Your task to perform on an android device: Search for pizza restaurants on Maps Image 0: 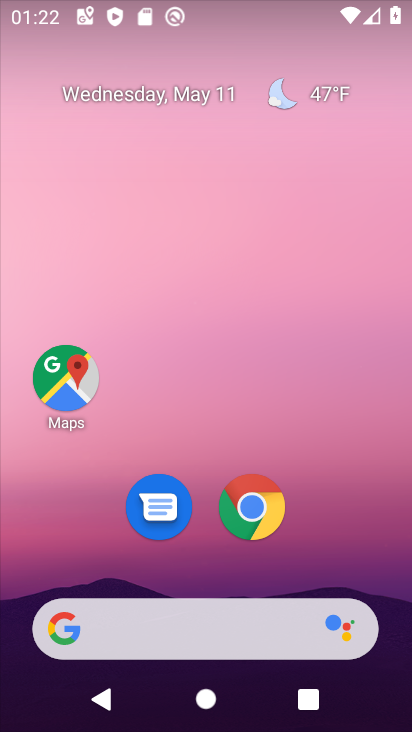
Step 0: click (58, 378)
Your task to perform on an android device: Search for pizza restaurants on Maps Image 1: 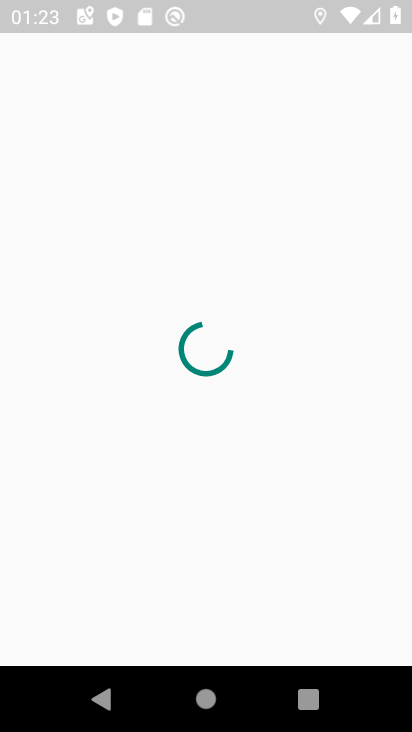
Step 1: click (303, 82)
Your task to perform on an android device: Search for pizza restaurants on Maps Image 2: 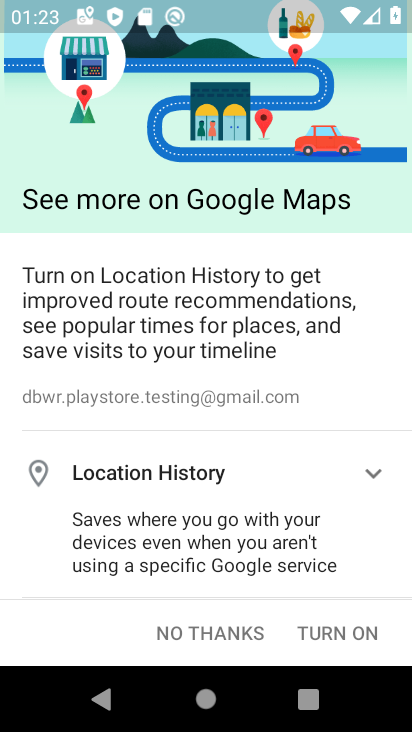
Step 2: click (303, 629)
Your task to perform on an android device: Search for pizza restaurants on Maps Image 3: 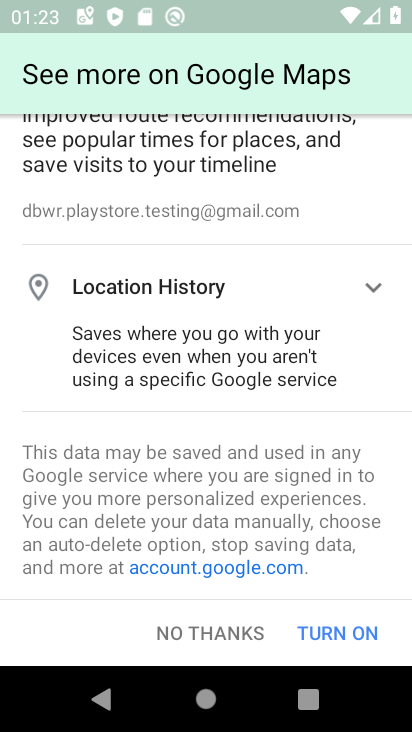
Step 3: click (303, 629)
Your task to perform on an android device: Search for pizza restaurants on Maps Image 4: 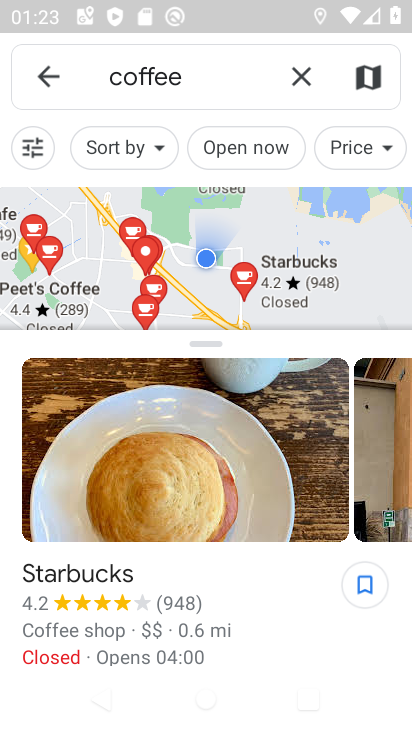
Step 4: click (302, 68)
Your task to perform on an android device: Search for pizza restaurants on Maps Image 5: 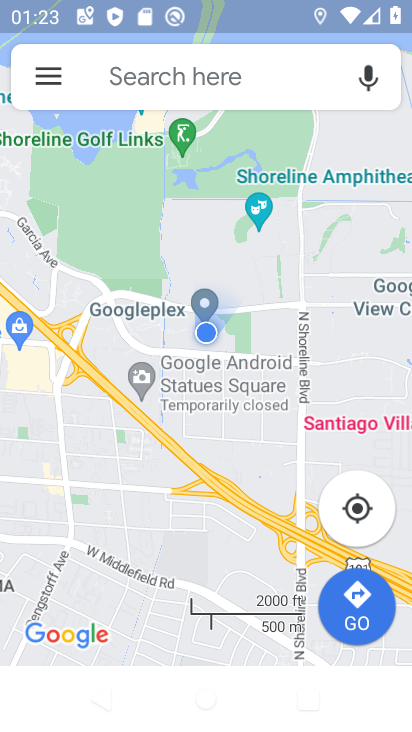
Step 5: click (186, 76)
Your task to perform on an android device: Search for pizza restaurants on Maps Image 6: 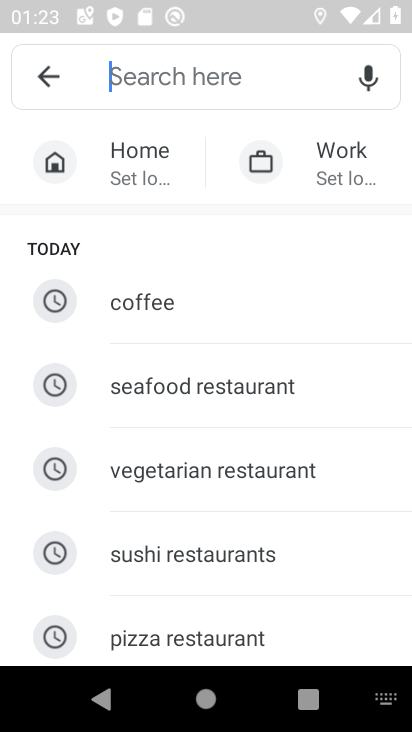
Step 6: click (191, 636)
Your task to perform on an android device: Search for pizza restaurants on Maps Image 7: 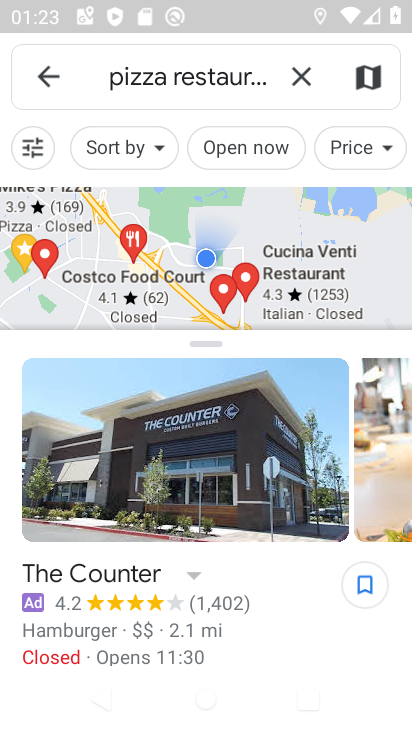
Step 7: task complete